Your task to perform on an android device: Turn on the flashlight Image 0: 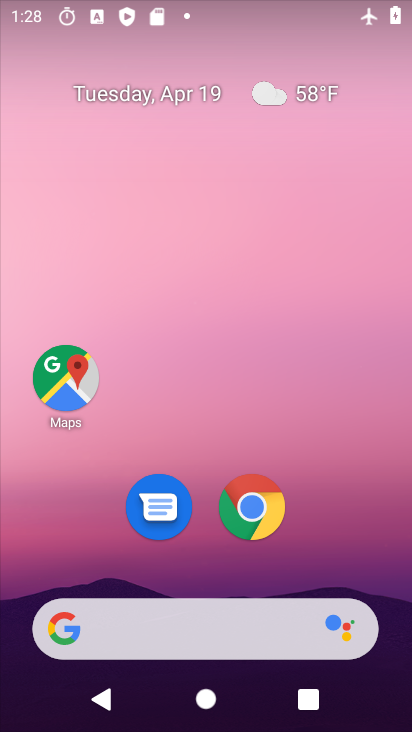
Step 0: drag from (207, 53) to (192, 408)
Your task to perform on an android device: Turn on the flashlight Image 1: 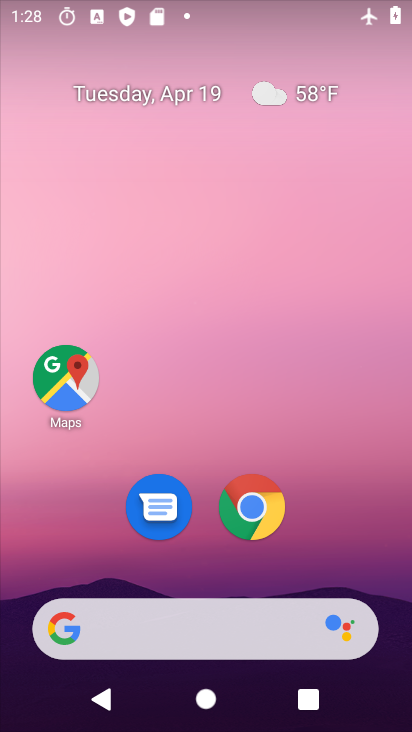
Step 1: task complete